Your task to perform on an android device: change the clock style Image 0: 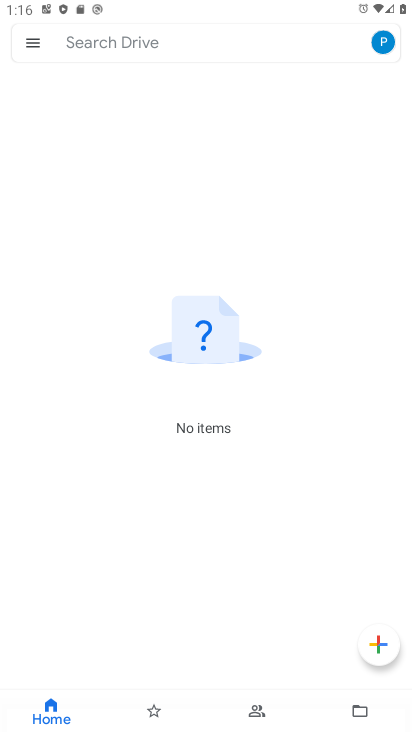
Step 0: press home button
Your task to perform on an android device: change the clock style Image 1: 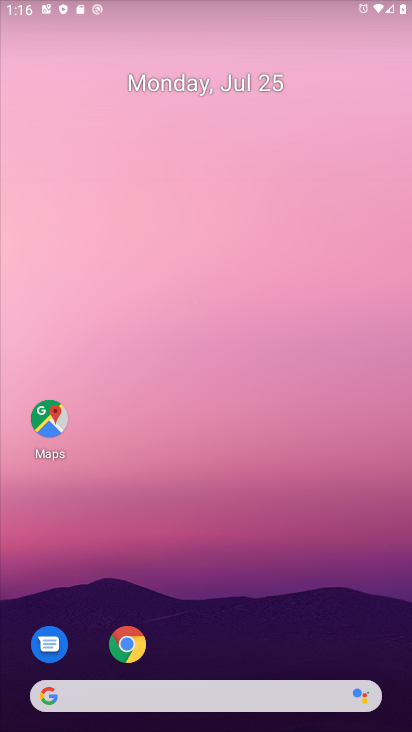
Step 1: drag from (372, 666) to (225, 27)
Your task to perform on an android device: change the clock style Image 2: 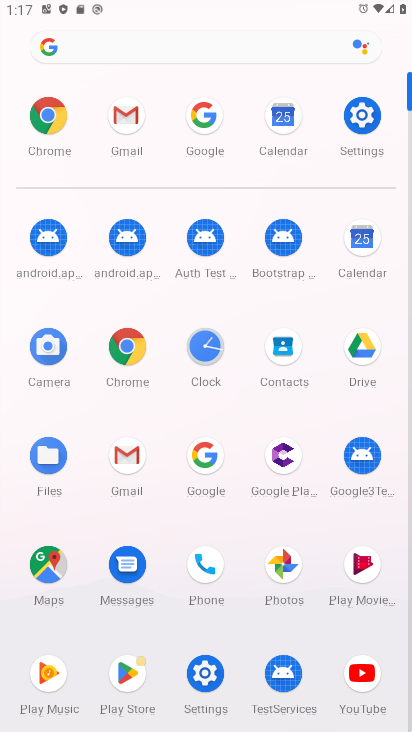
Step 2: click (209, 336)
Your task to perform on an android device: change the clock style Image 3: 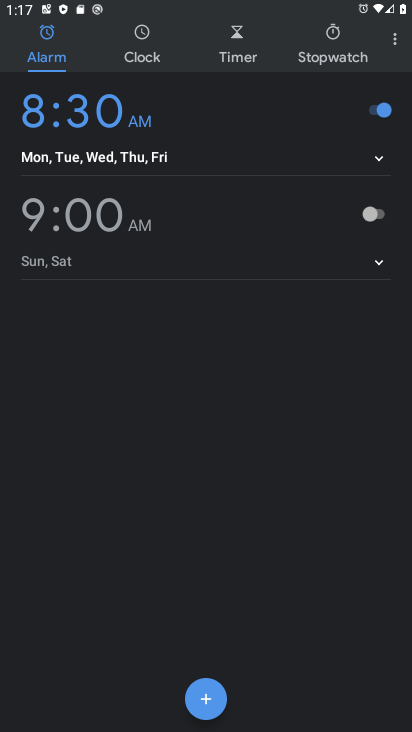
Step 3: click (392, 39)
Your task to perform on an android device: change the clock style Image 4: 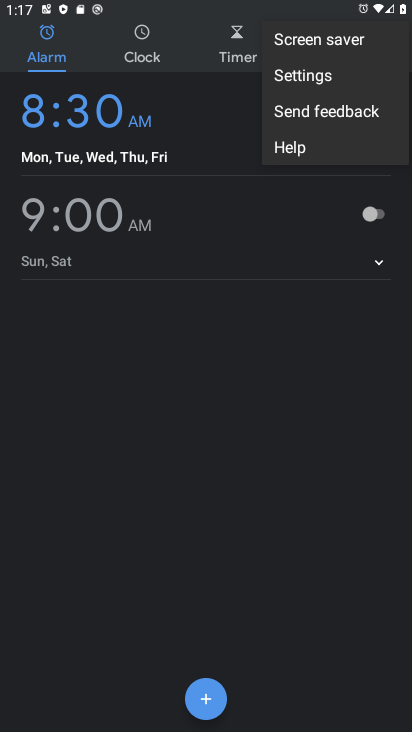
Step 4: click (309, 79)
Your task to perform on an android device: change the clock style Image 5: 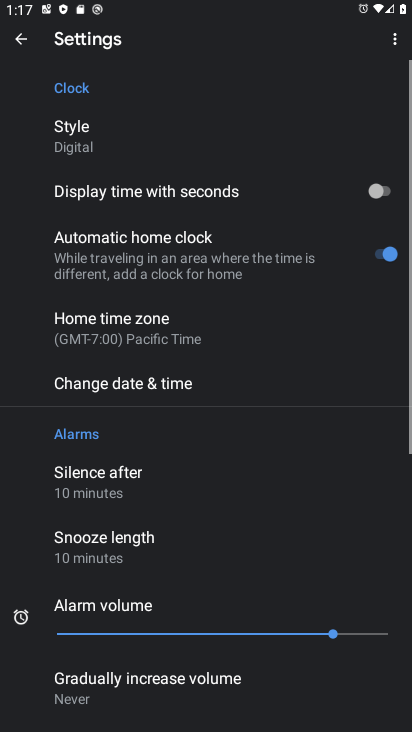
Step 5: click (78, 138)
Your task to perform on an android device: change the clock style Image 6: 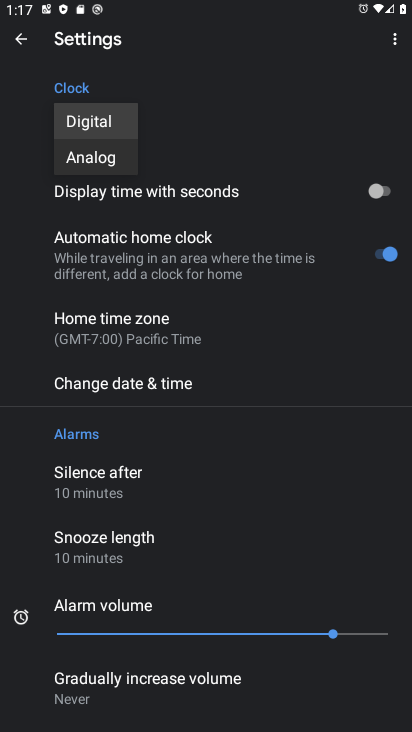
Step 6: click (84, 157)
Your task to perform on an android device: change the clock style Image 7: 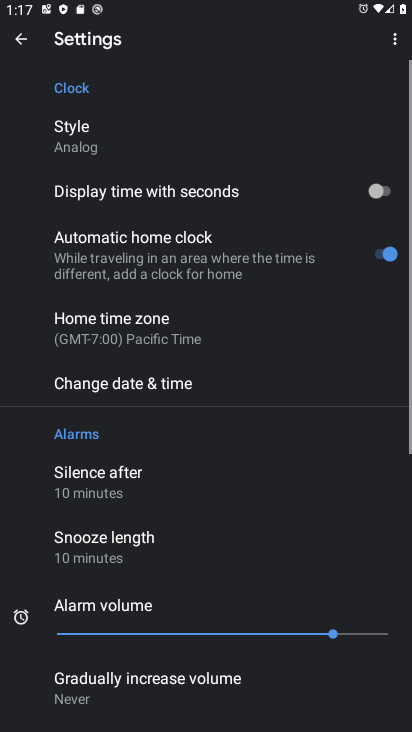
Step 7: task complete